Your task to perform on an android device: Open maps Image 0: 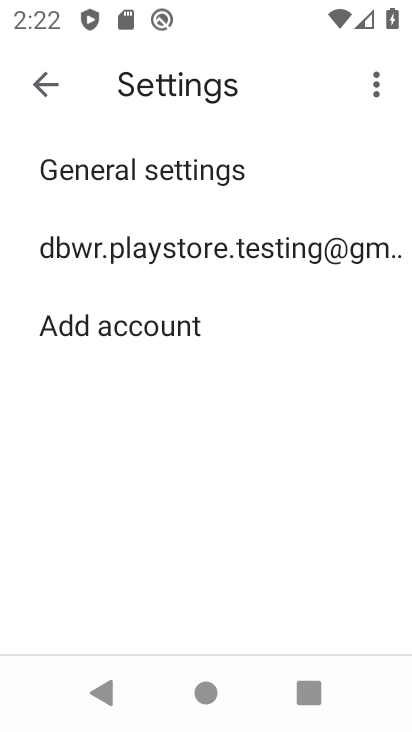
Step 0: press home button
Your task to perform on an android device: Open maps Image 1: 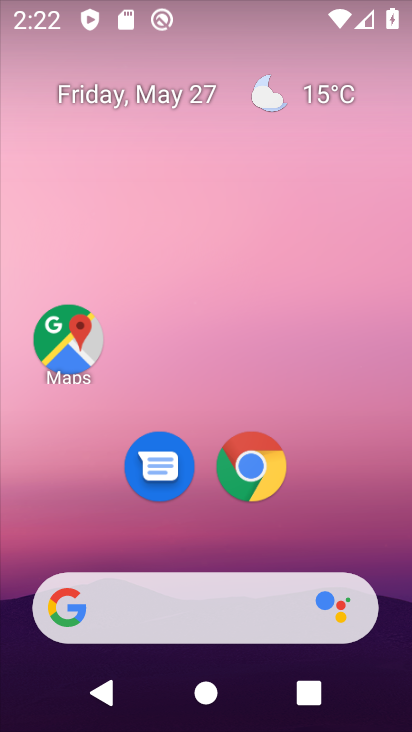
Step 1: drag from (379, 503) to (372, 117)
Your task to perform on an android device: Open maps Image 2: 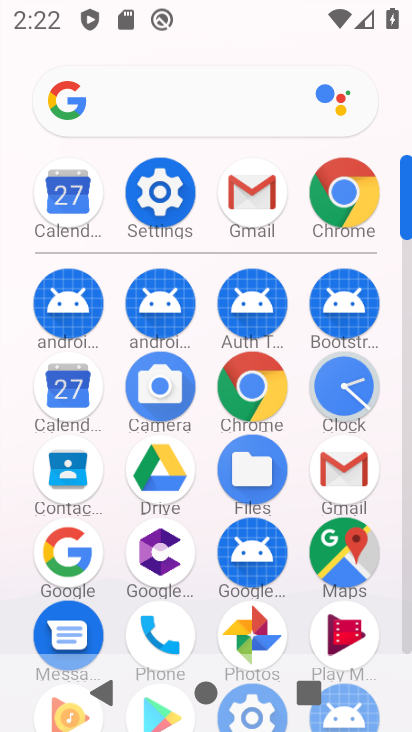
Step 2: click (326, 561)
Your task to perform on an android device: Open maps Image 3: 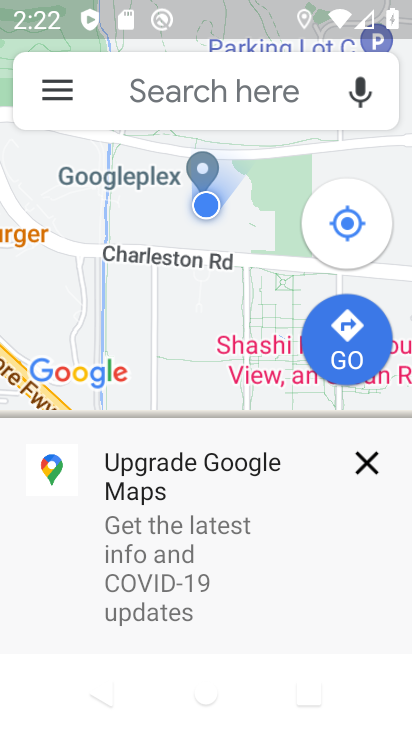
Step 3: task complete